Your task to perform on an android device: open app "AliExpress" (install if not already installed) and go to login screen Image 0: 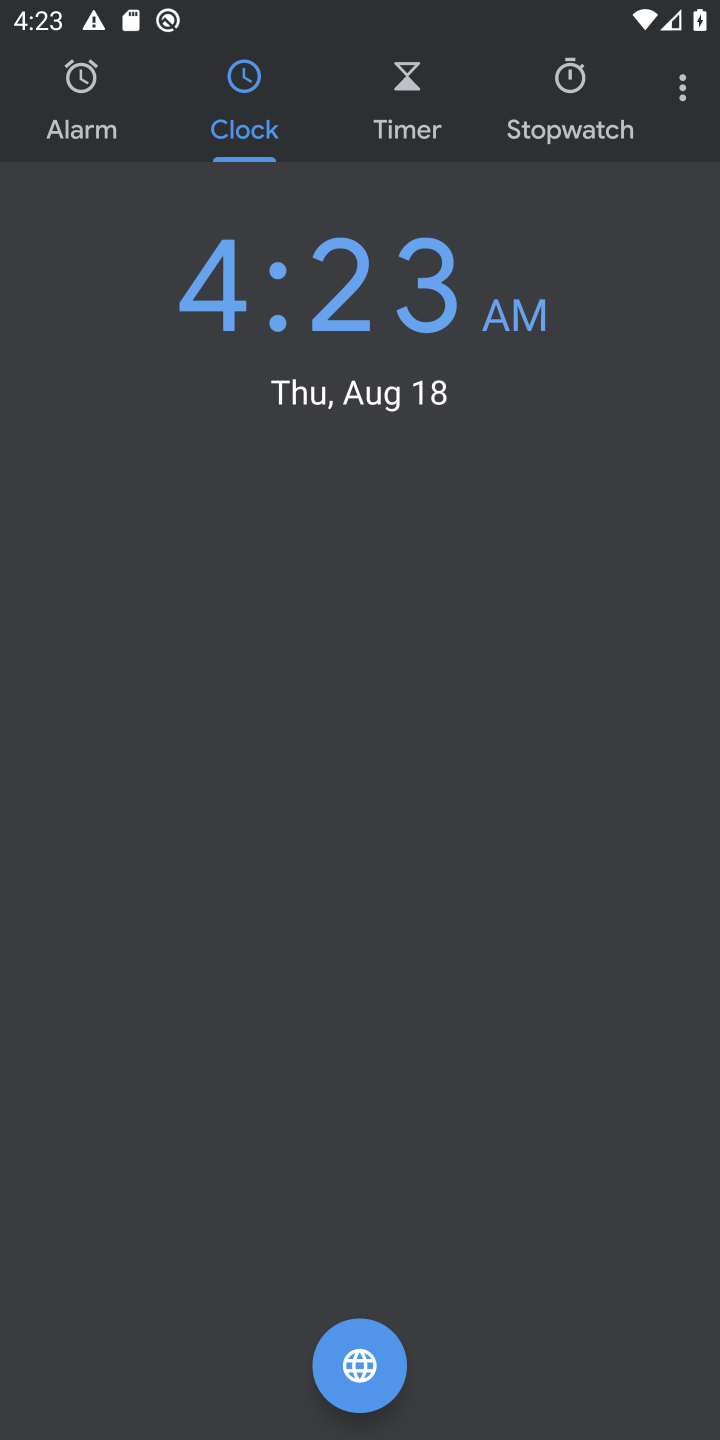
Step 0: press home button
Your task to perform on an android device: open app "AliExpress" (install if not already installed) and go to login screen Image 1: 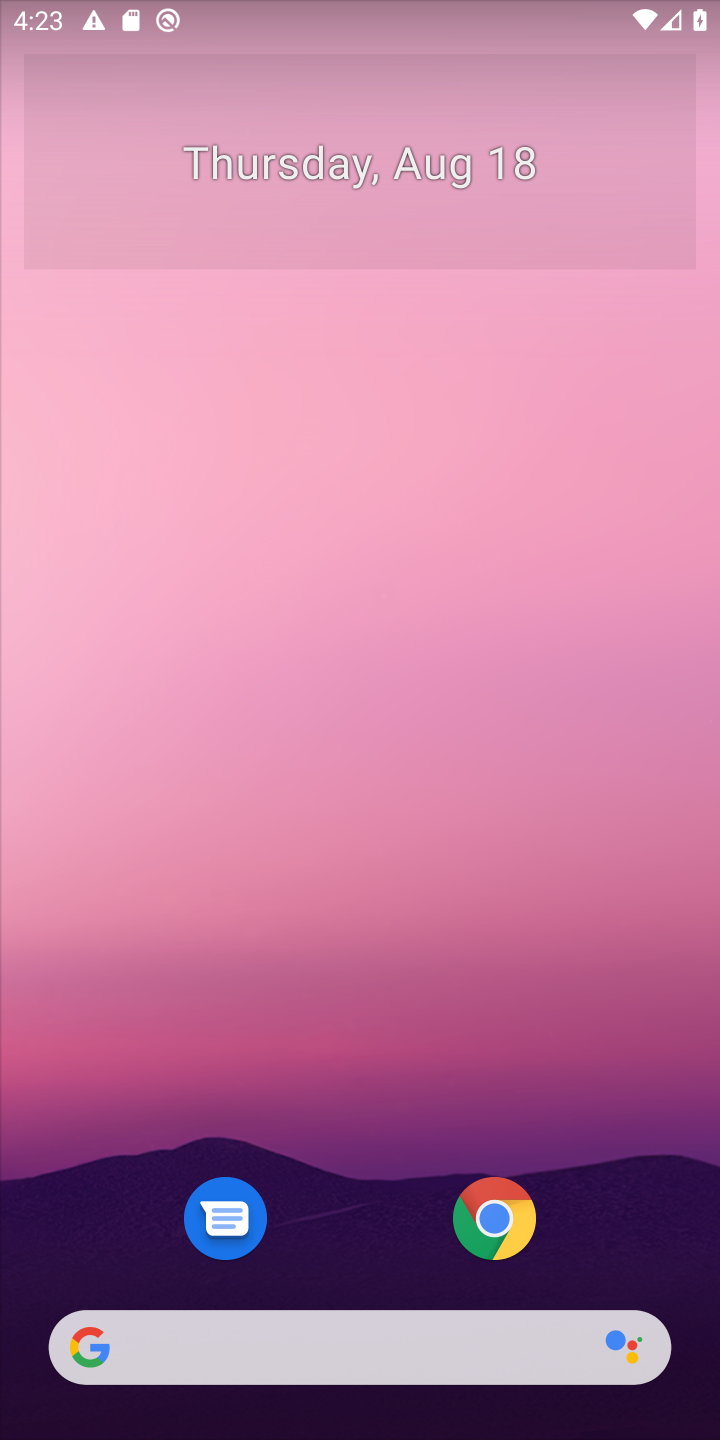
Step 1: drag from (318, 900) to (332, 529)
Your task to perform on an android device: open app "AliExpress" (install if not already installed) and go to login screen Image 2: 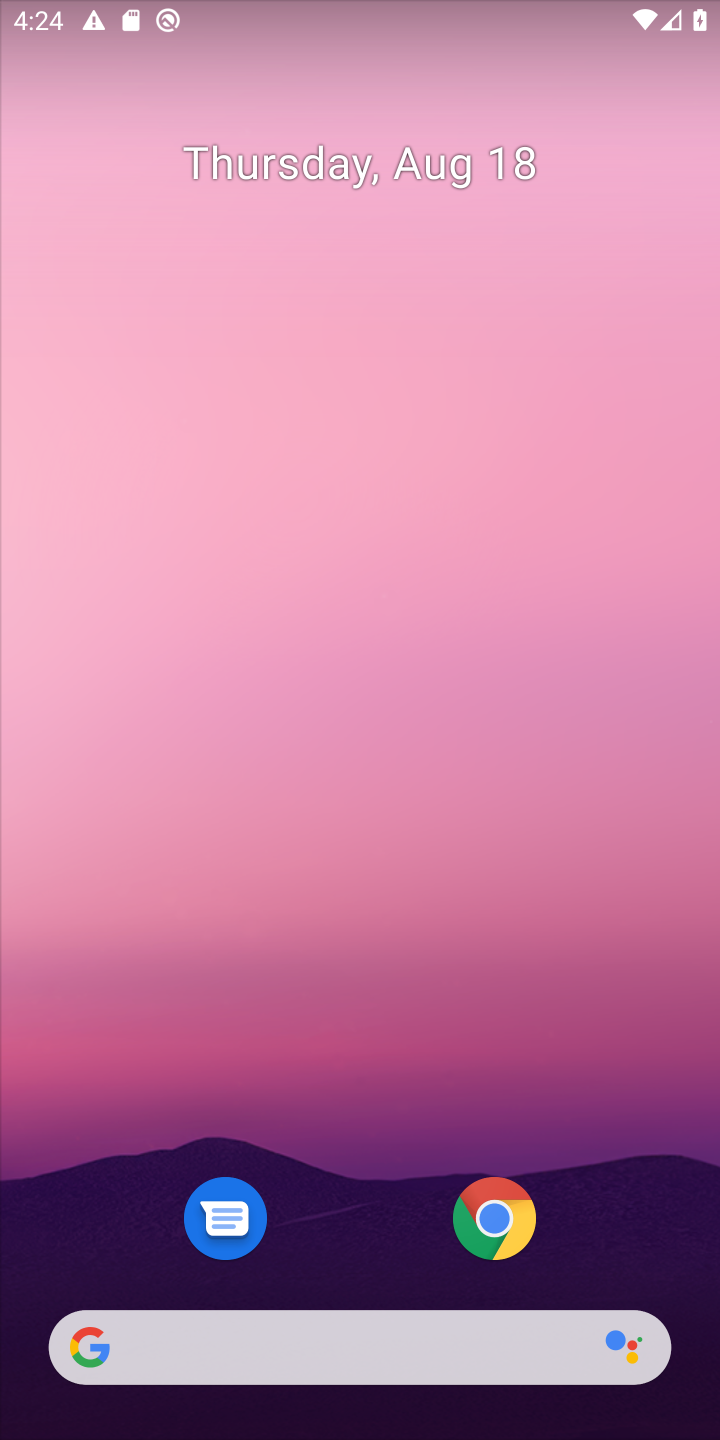
Step 2: drag from (351, 1189) to (405, 334)
Your task to perform on an android device: open app "AliExpress" (install if not already installed) and go to login screen Image 3: 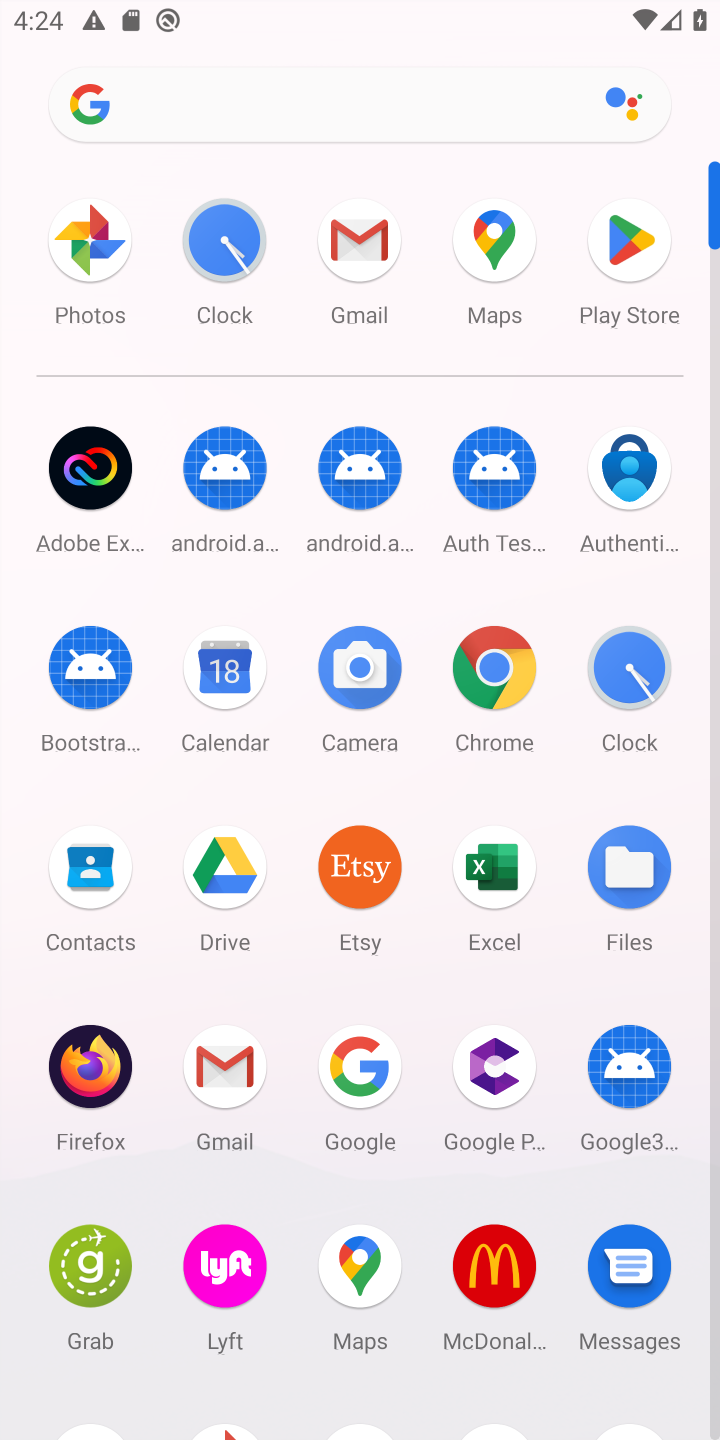
Step 3: click (609, 224)
Your task to perform on an android device: open app "AliExpress" (install if not already installed) and go to login screen Image 4: 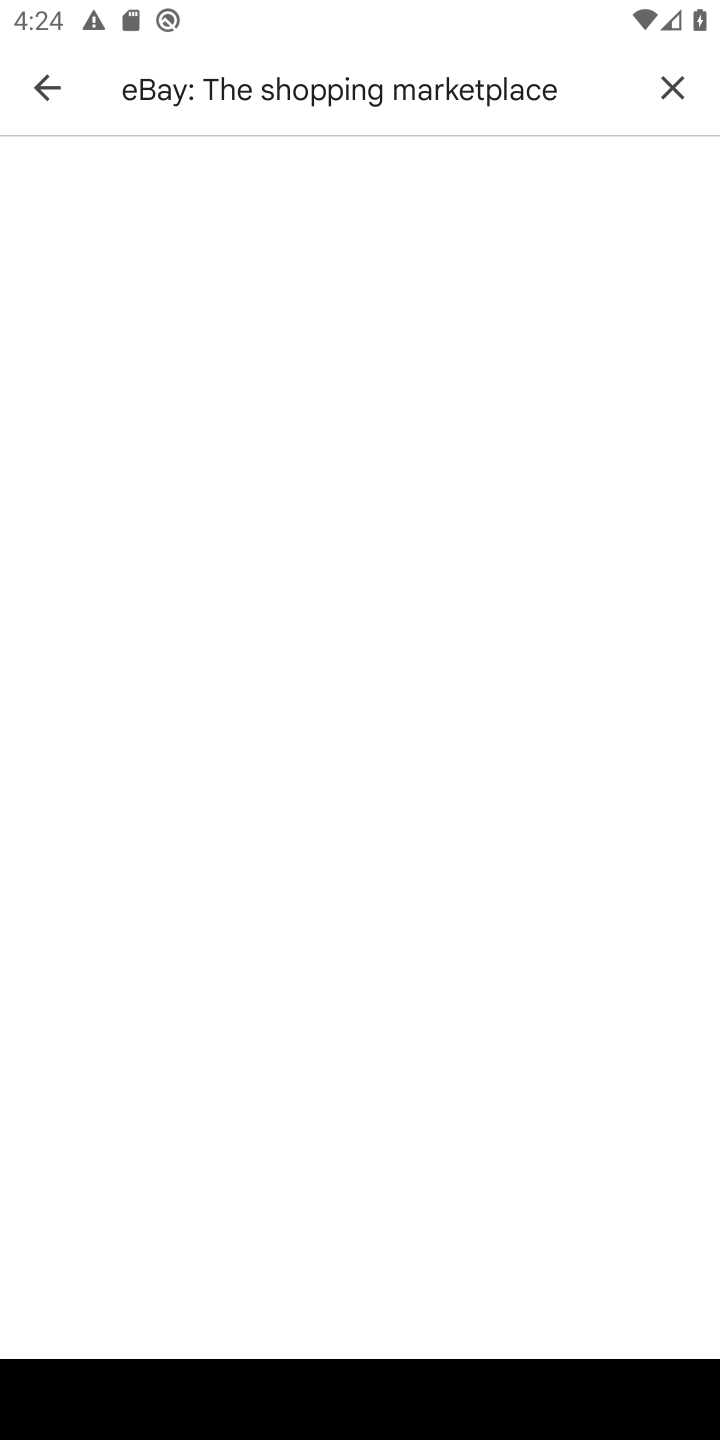
Step 4: click (662, 73)
Your task to perform on an android device: open app "AliExpress" (install if not already installed) and go to login screen Image 5: 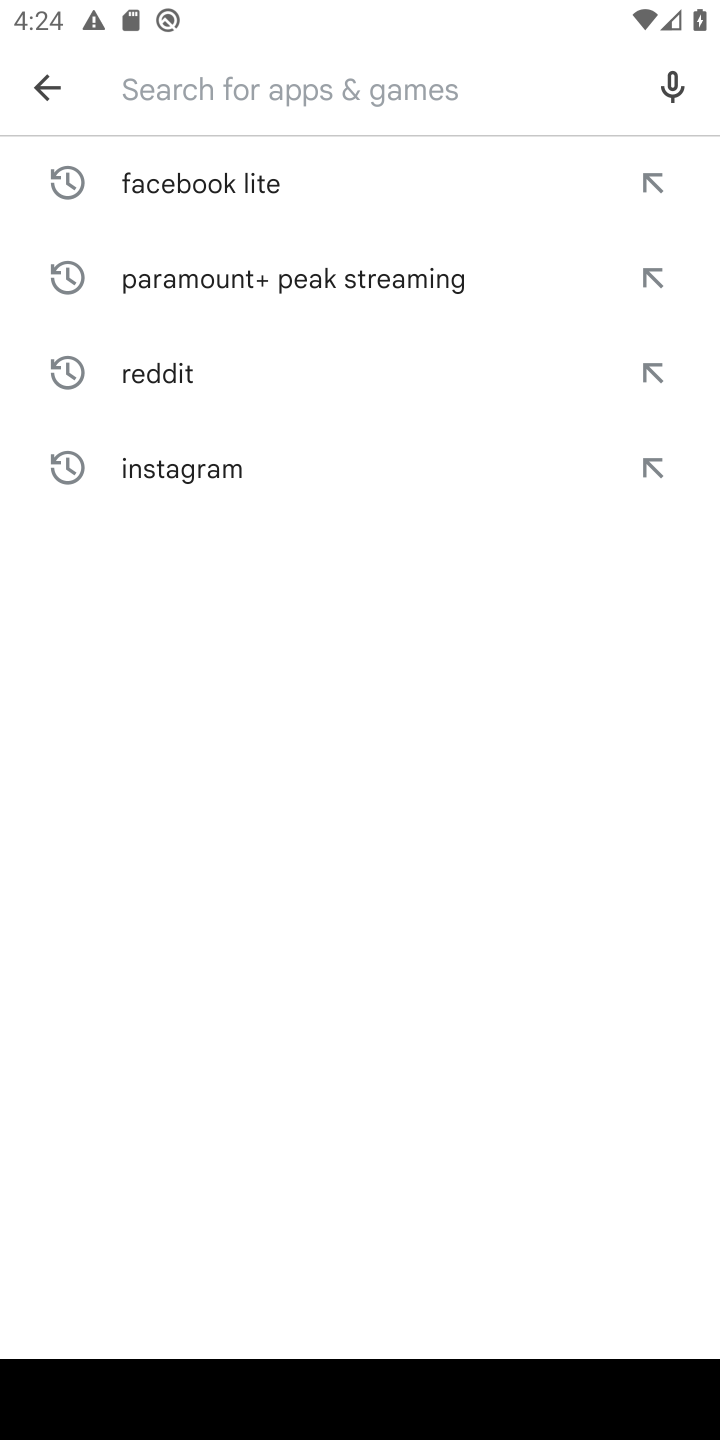
Step 5: type "AliExpress"
Your task to perform on an android device: open app "AliExpress" (install if not already installed) and go to login screen Image 6: 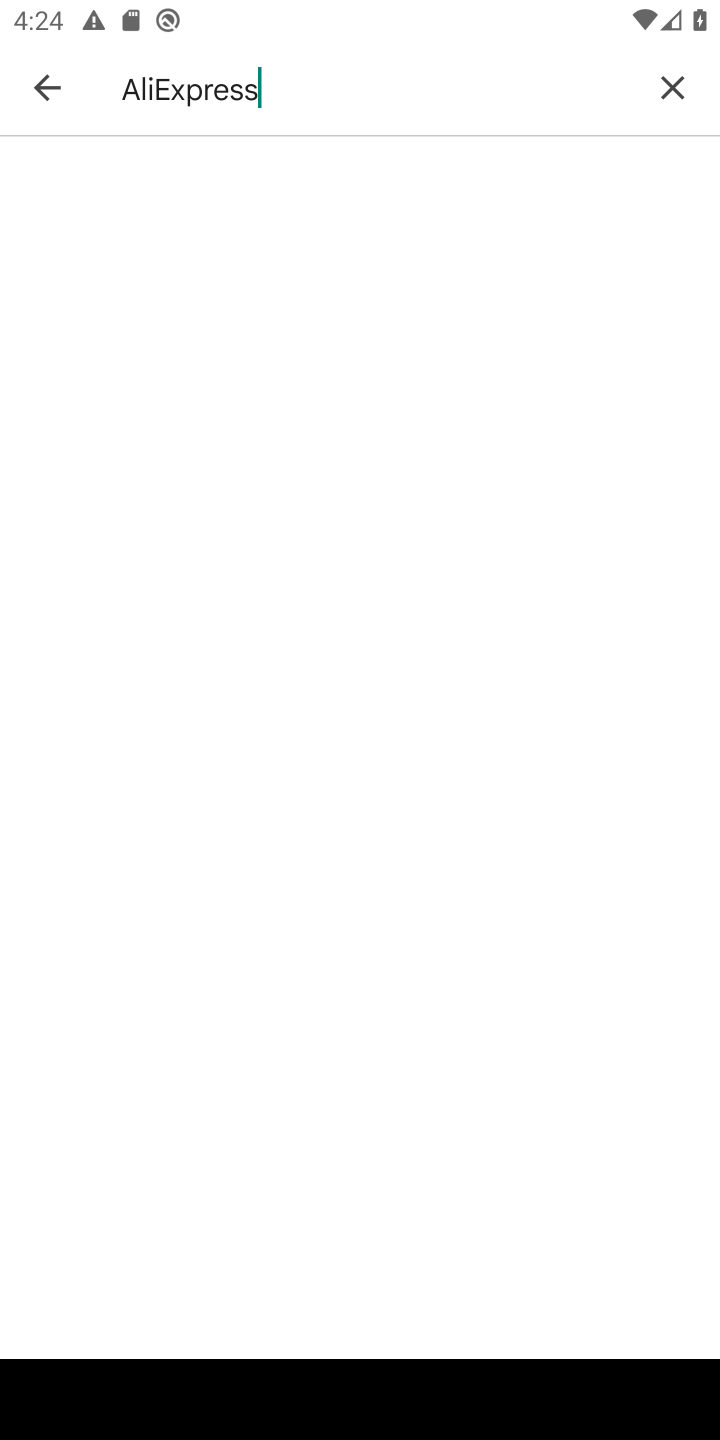
Step 6: task complete